Your task to perform on an android device: Open Google Maps Image 0: 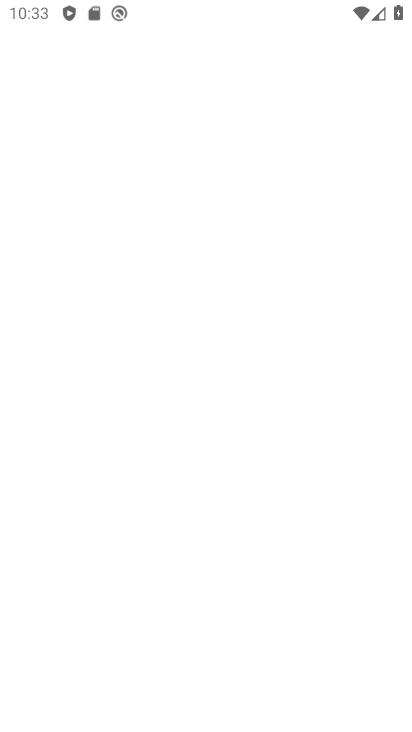
Step 0: click (233, 628)
Your task to perform on an android device: Open Google Maps Image 1: 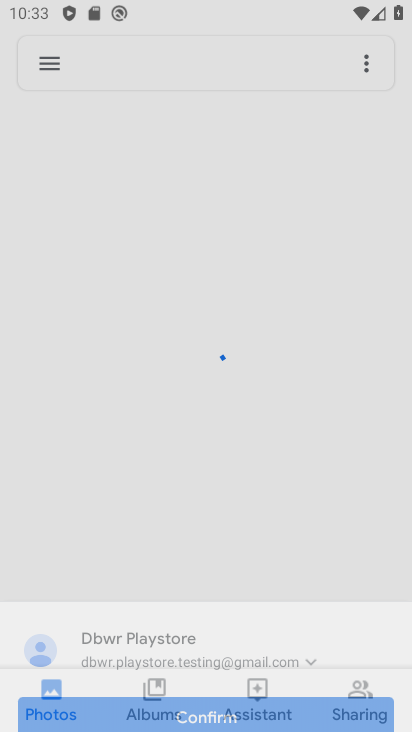
Step 1: press home button
Your task to perform on an android device: Open Google Maps Image 2: 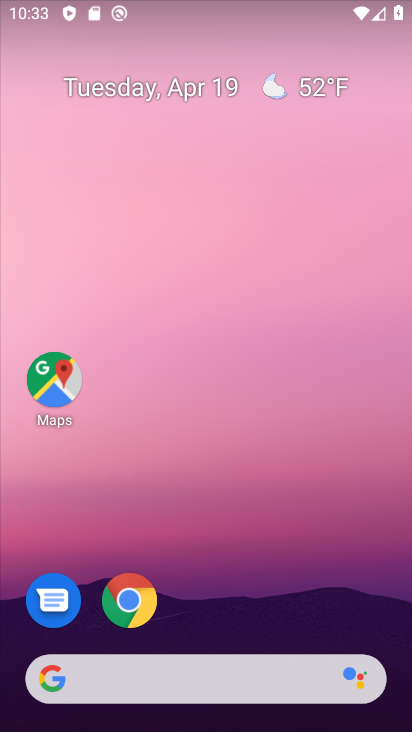
Step 2: click (61, 372)
Your task to perform on an android device: Open Google Maps Image 3: 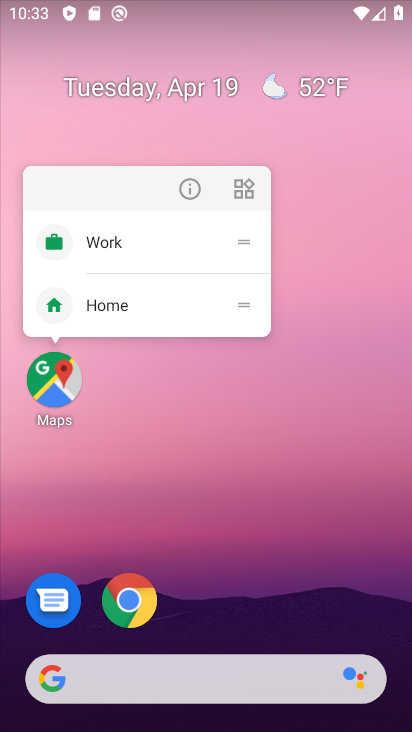
Step 3: click (42, 410)
Your task to perform on an android device: Open Google Maps Image 4: 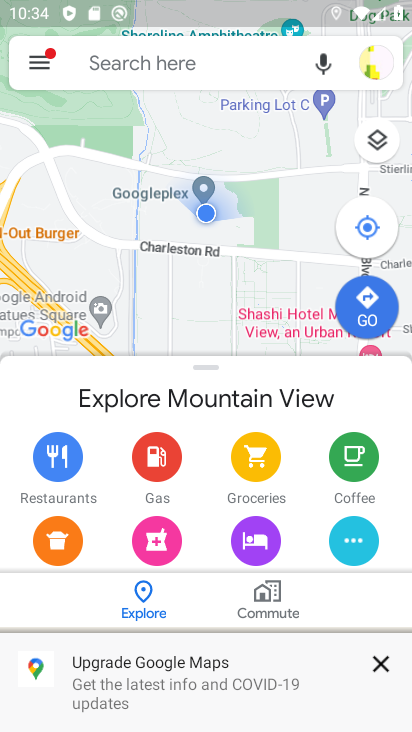
Step 4: task complete